Your task to perform on an android device: toggle priority inbox in the gmail app Image 0: 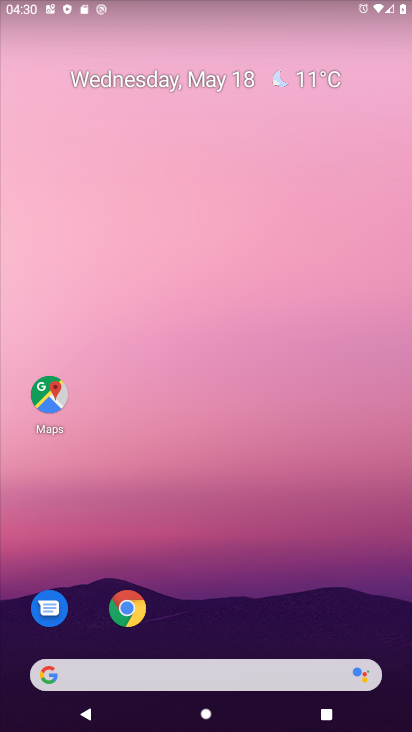
Step 0: drag from (200, 619) to (215, 87)
Your task to perform on an android device: toggle priority inbox in the gmail app Image 1: 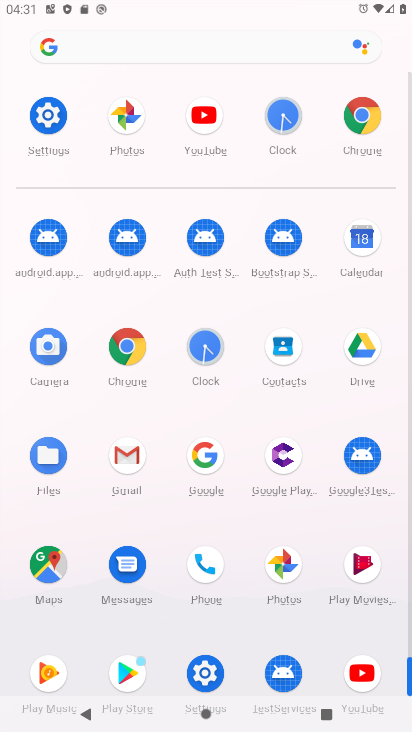
Step 1: click (123, 453)
Your task to perform on an android device: toggle priority inbox in the gmail app Image 2: 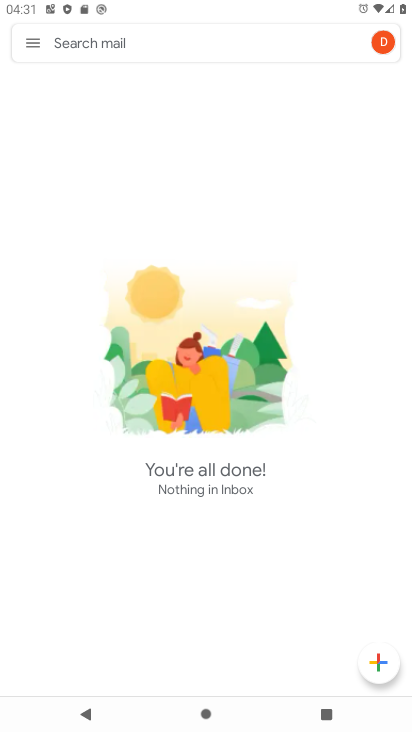
Step 2: click (32, 47)
Your task to perform on an android device: toggle priority inbox in the gmail app Image 3: 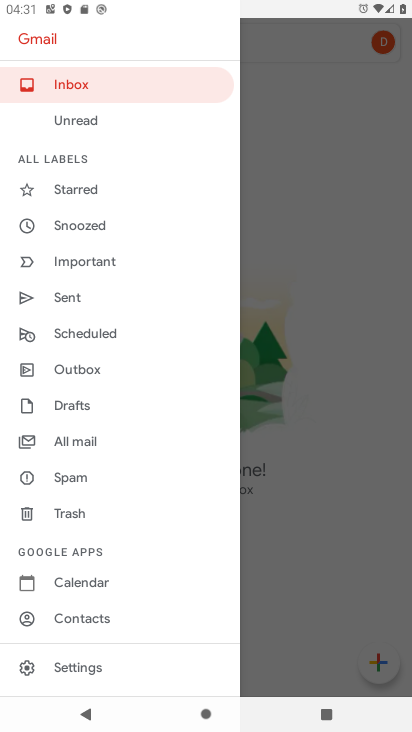
Step 3: click (83, 684)
Your task to perform on an android device: toggle priority inbox in the gmail app Image 4: 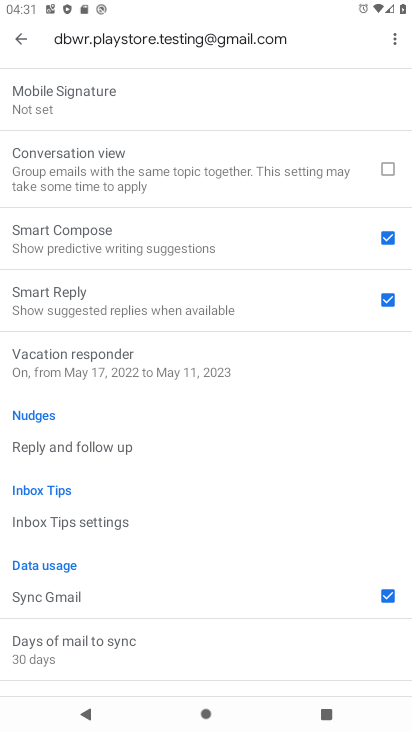
Step 4: drag from (126, 521) to (168, 128)
Your task to perform on an android device: toggle priority inbox in the gmail app Image 5: 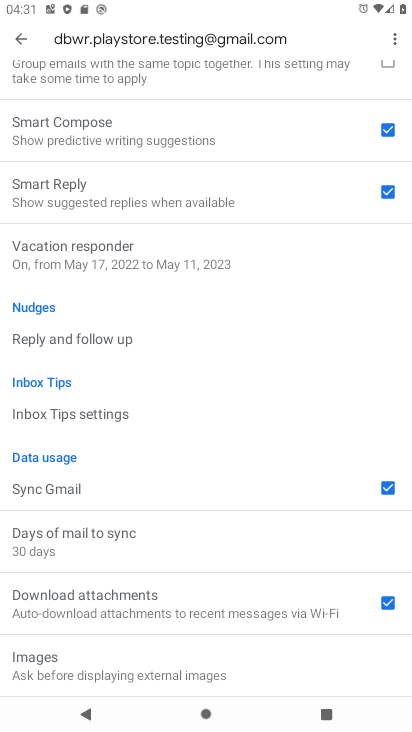
Step 5: drag from (204, 106) to (194, 583)
Your task to perform on an android device: toggle priority inbox in the gmail app Image 6: 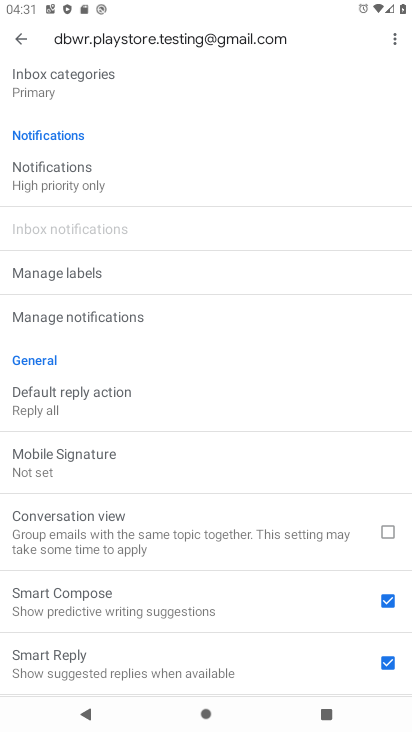
Step 6: drag from (73, 200) to (98, 599)
Your task to perform on an android device: toggle priority inbox in the gmail app Image 7: 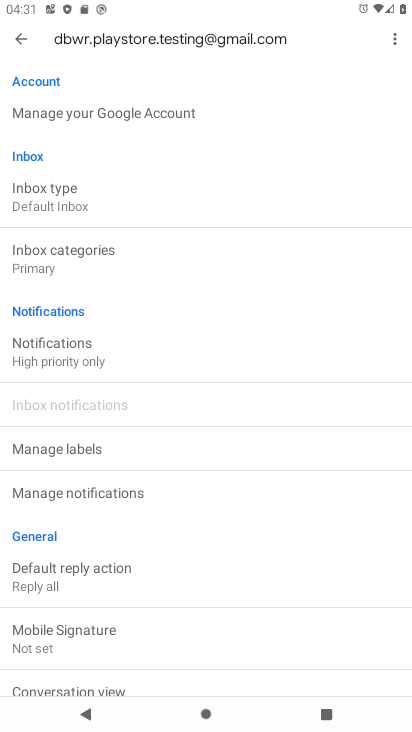
Step 7: click (75, 197)
Your task to perform on an android device: toggle priority inbox in the gmail app Image 8: 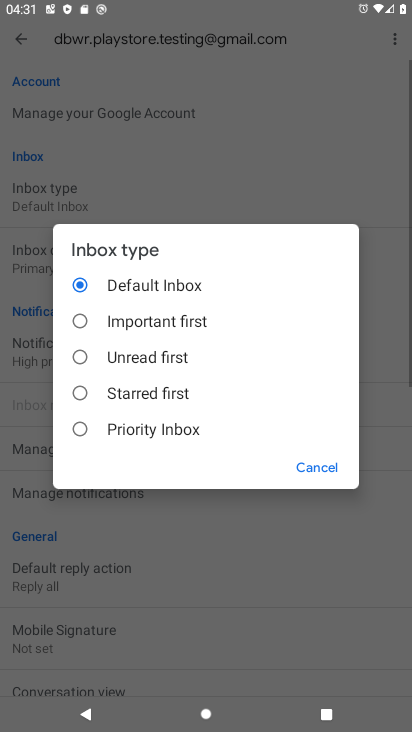
Step 8: click (75, 197)
Your task to perform on an android device: toggle priority inbox in the gmail app Image 9: 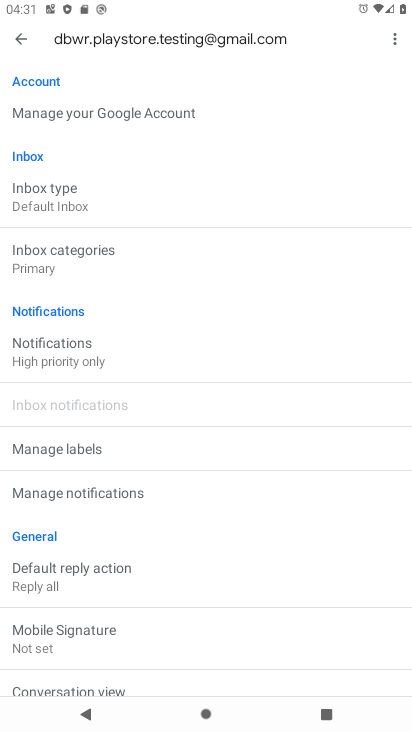
Step 9: click (86, 219)
Your task to perform on an android device: toggle priority inbox in the gmail app Image 10: 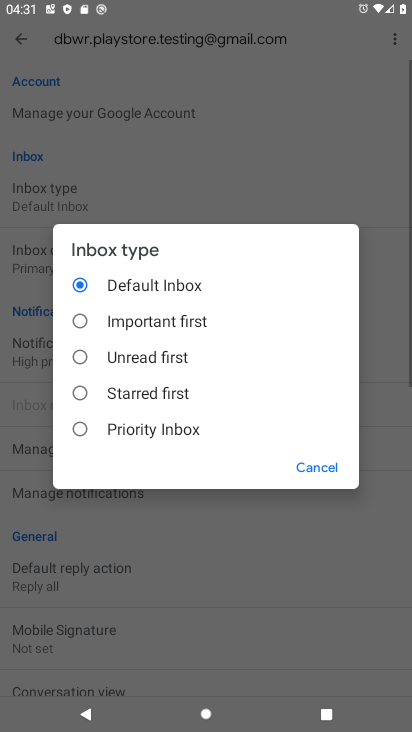
Step 10: click (179, 331)
Your task to perform on an android device: toggle priority inbox in the gmail app Image 11: 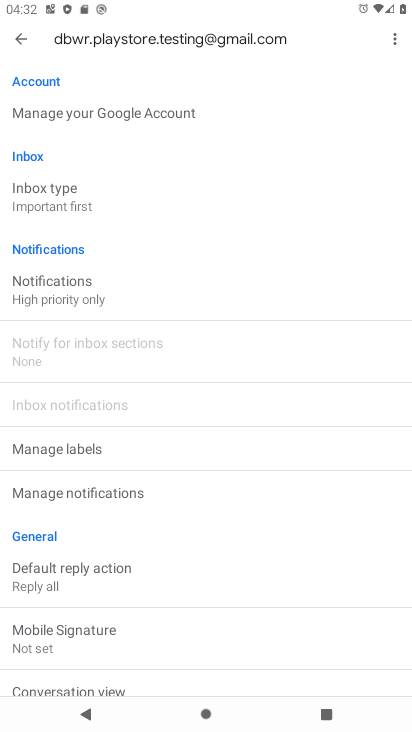
Step 11: task complete